Your task to perform on an android device: create a new album in the google photos Image 0: 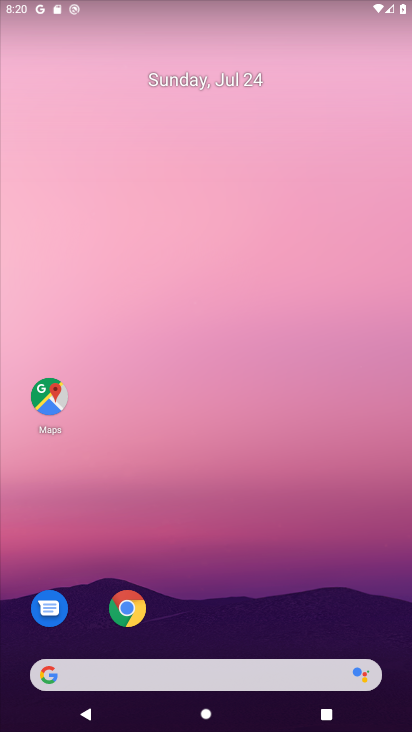
Step 0: drag from (246, 608) to (258, 248)
Your task to perform on an android device: create a new album in the google photos Image 1: 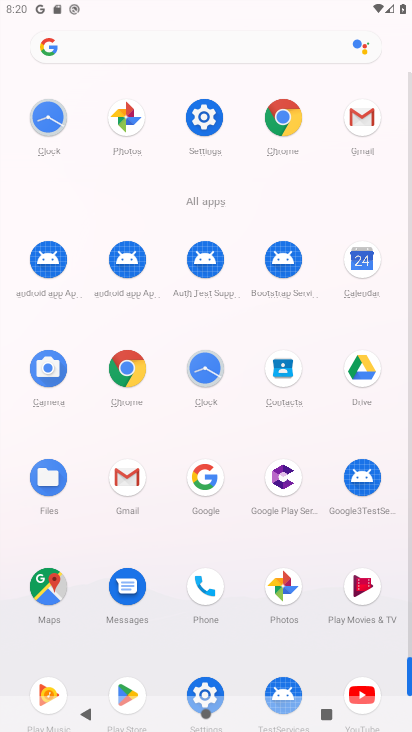
Step 1: click (137, 115)
Your task to perform on an android device: create a new album in the google photos Image 2: 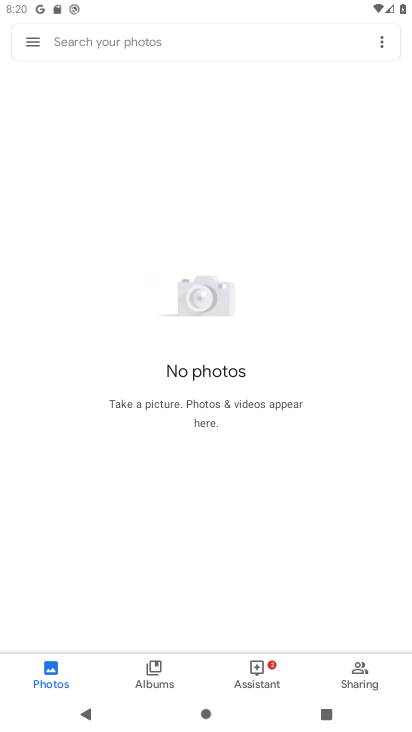
Step 2: task complete